Your task to perform on an android device: turn off data saver in the chrome app Image 0: 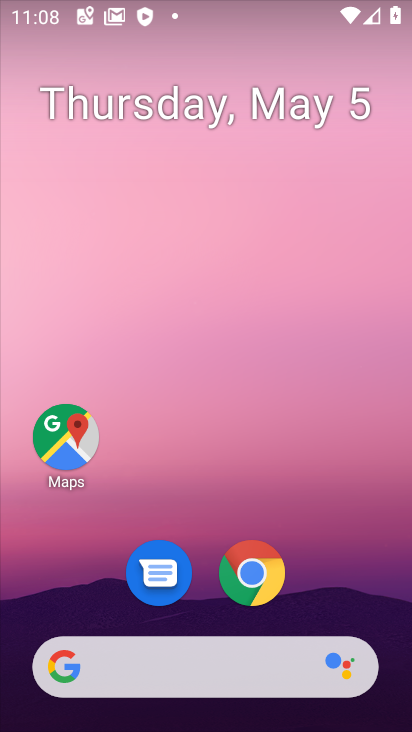
Step 0: drag from (320, 407) to (267, 81)
Your task to perform on an android device: turn off data saver in the chrome app Image 1: 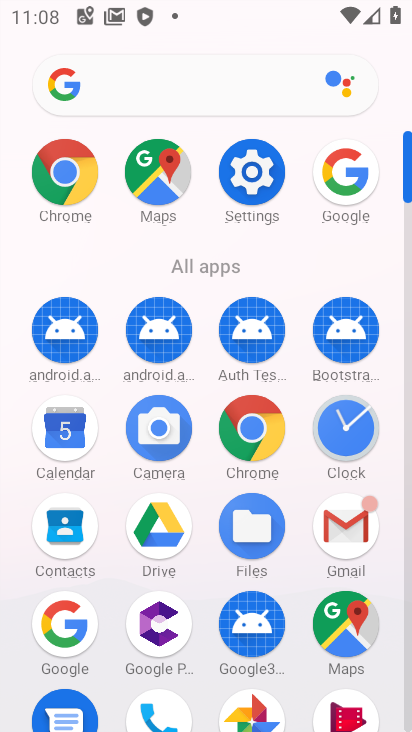
Step 1: click (251, 415)
Your task to perform on an android device: turn off data saver in the chrome app Image 2: 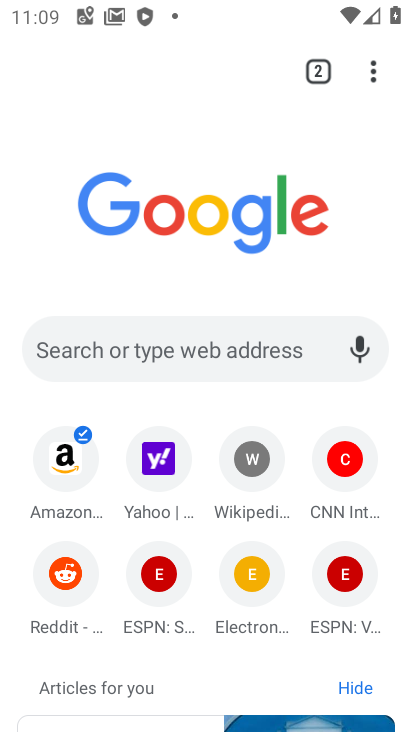
Step 2: click (361, 71)
Your task to perform on an android device: turn off data saver in the chrome app Image 3: 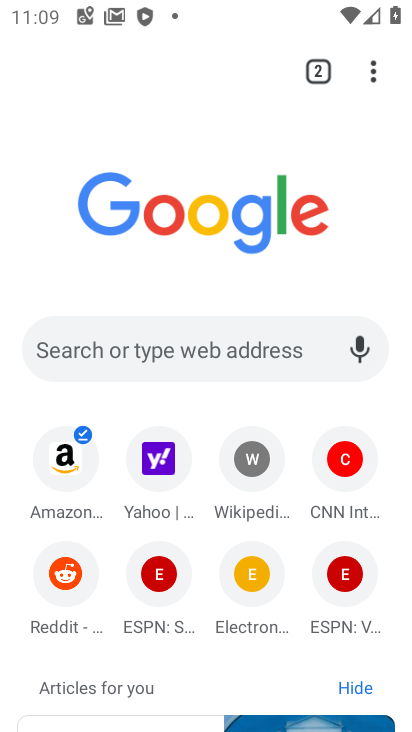
Step 3: click (367, 75)
Your task to perform on an android device: turn off data saver in the chrome app Image 4: 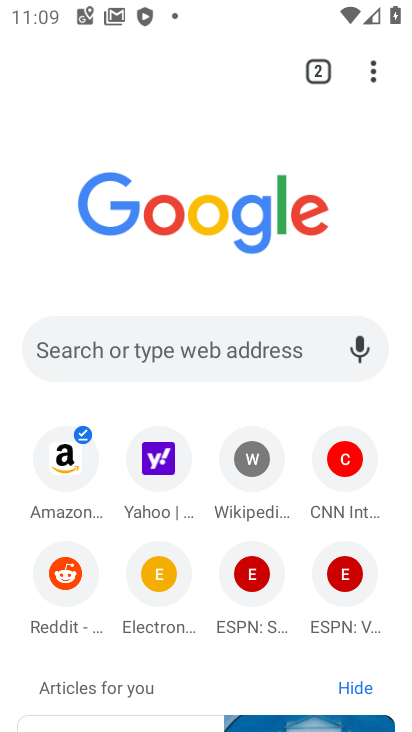
Step 4: click (367, 75)
Your task to perform on an android device: turn off data saver in the chrome app Image 5: 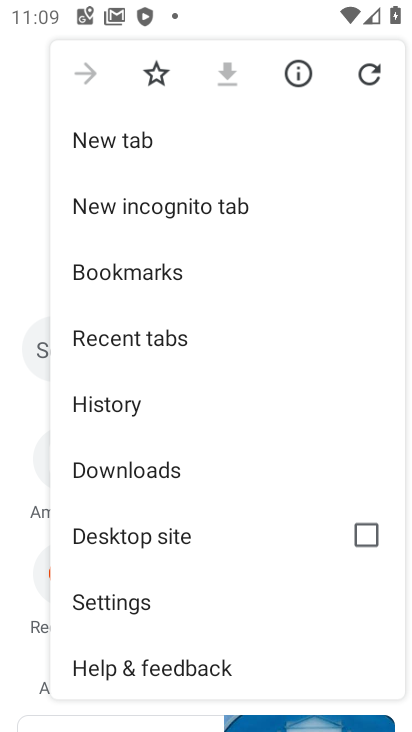
Step 5: click (152, 607)
Your task to perform on an android device: turn off data saver in the chrome app Image 6: 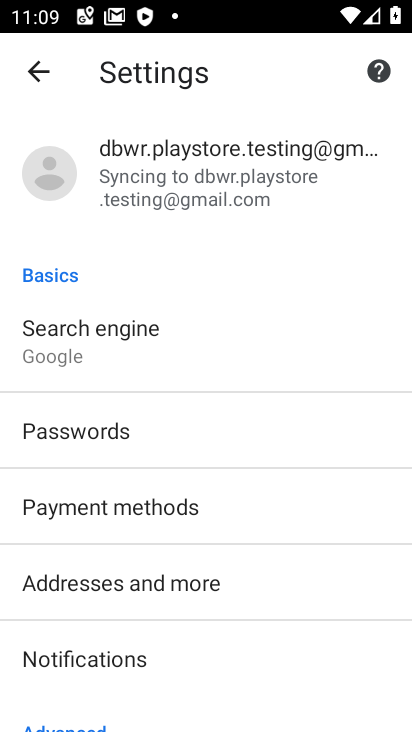
Step 6: drag from (255, 655) to (335, 189)
Your task to perform on an android device: turn off data saver in the chrome app Image 7: 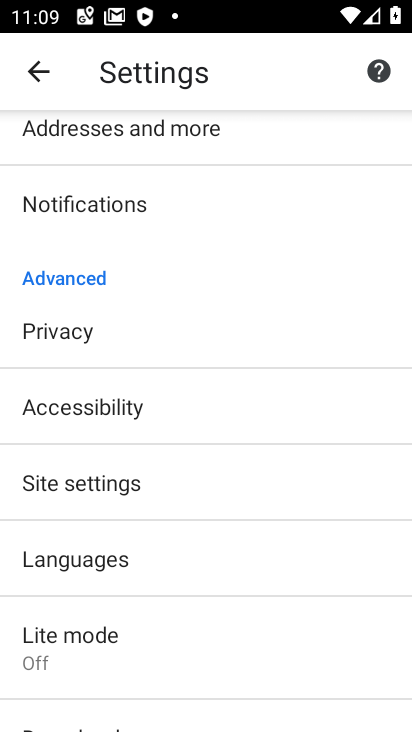
Step 7: click (115, 644)
Your task to perform on an android device: turn off data saver in the chrome app Image 8: 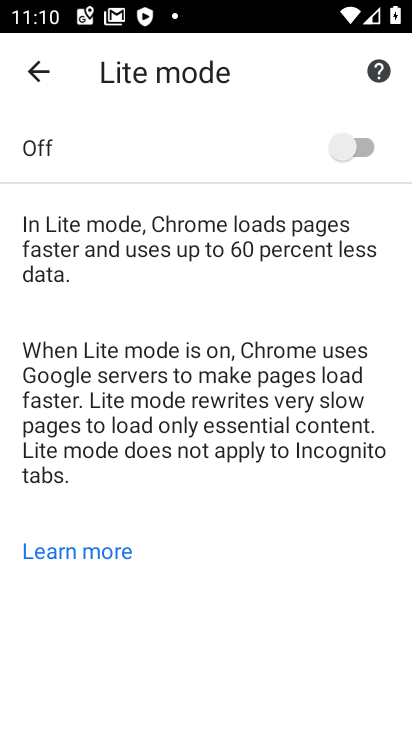
Step 8: task complete